Your task to perform on an android device: Toggle the flashlight Image 0: 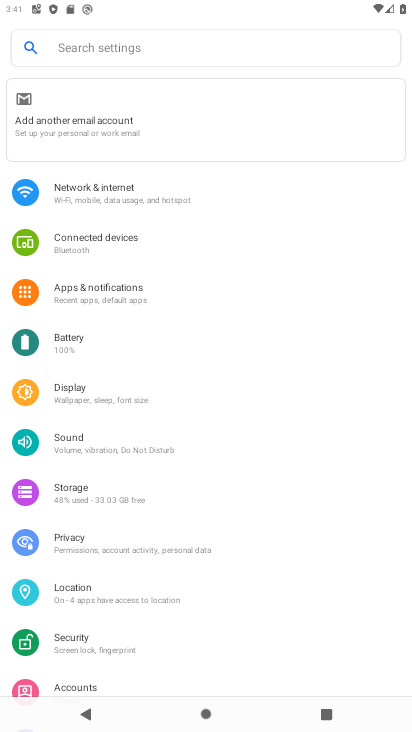
Step 0: task impossible